Your task to perform on an android device: Open calendar and show me the third week of next month Image 0: 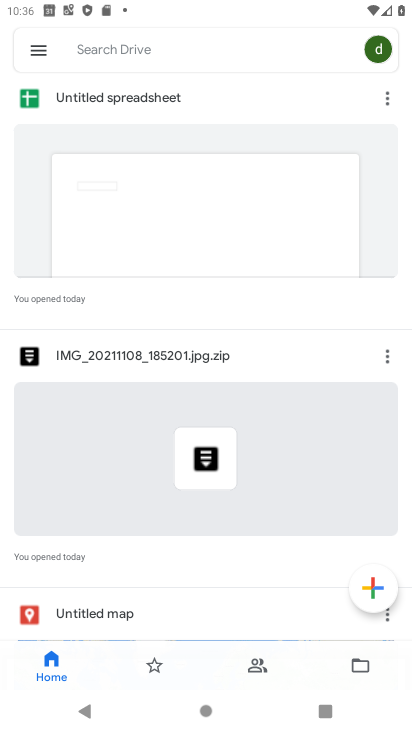
Step 0: press home button
Your task to perform on an android device: Open calendar and show me the third week of next month Image 1: 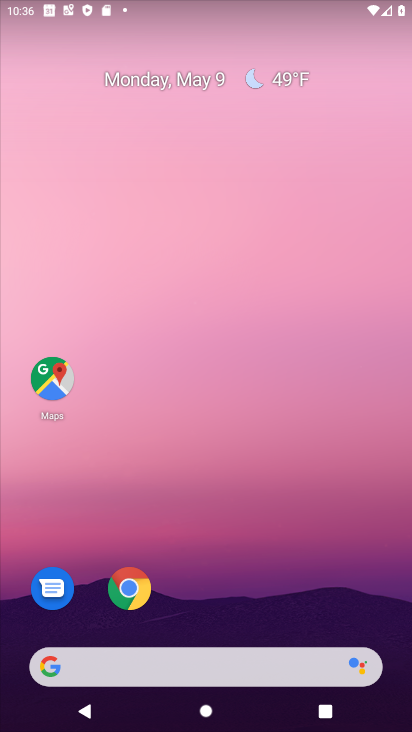
Step 1: drag from (224, 727) to (205, 364)
Your task to perform on an android device: Open calendar and show me the third week of next month Image 2: 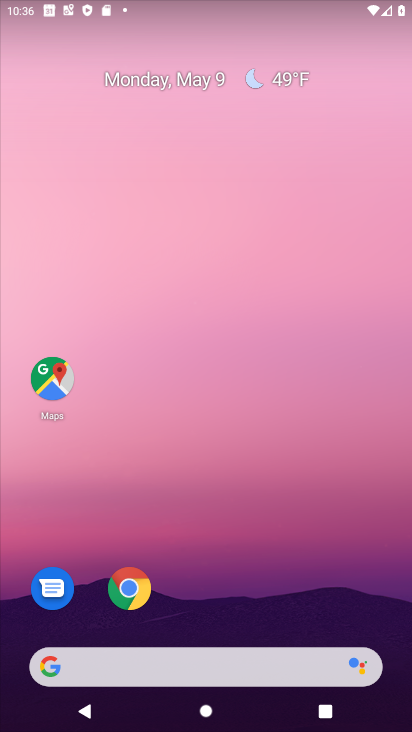
Step 2: drag from (221, 725) to (216, 368)
Your task to perform on an android device: Open calendar and show me the third week of next month Image 3: 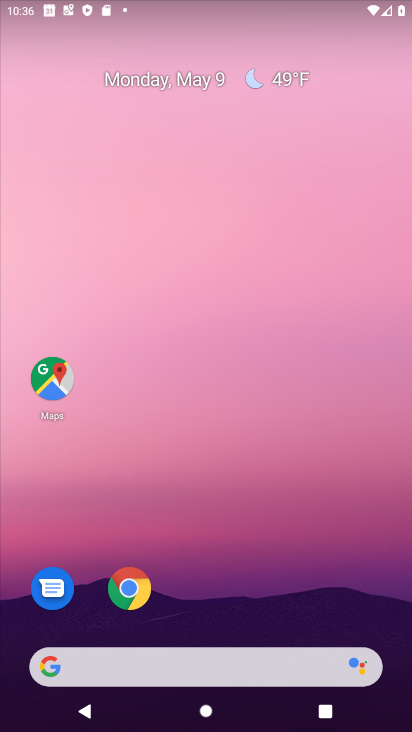
Step 3: drag from (227, 715) to (211, 473)
Your task to perform on an android device: Open calendar and show me the third week of next month Image 4: 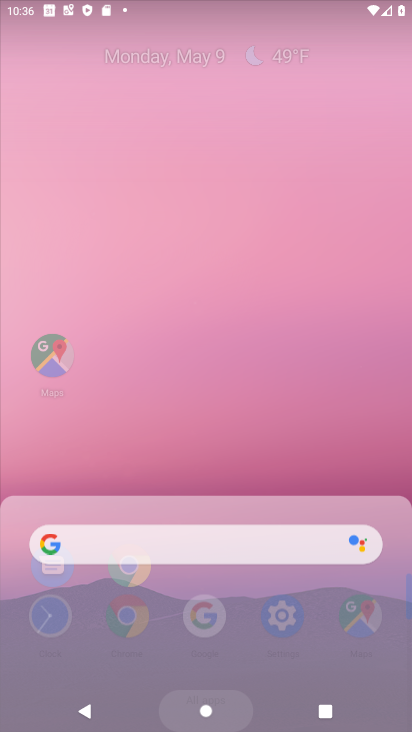
Step 4: click (211, 99)
Your task to perform on an android device: Open calendar and show me the third week of next month Image 5: 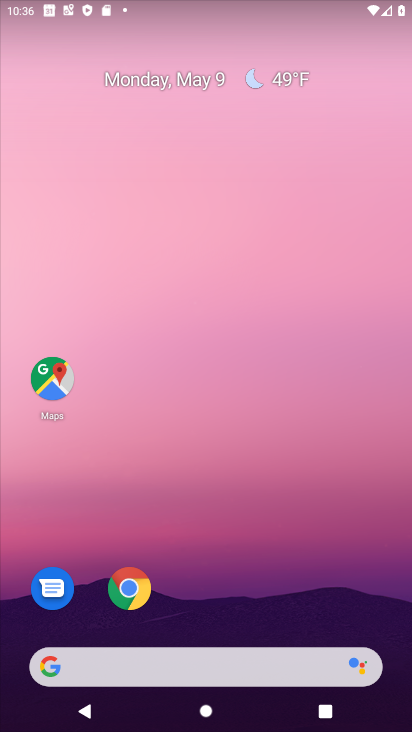
Step 5: drag from (228, 723) to (227, 139)
Your task to perform on an android device: Open calendar and show me the third week of next month Image 6: 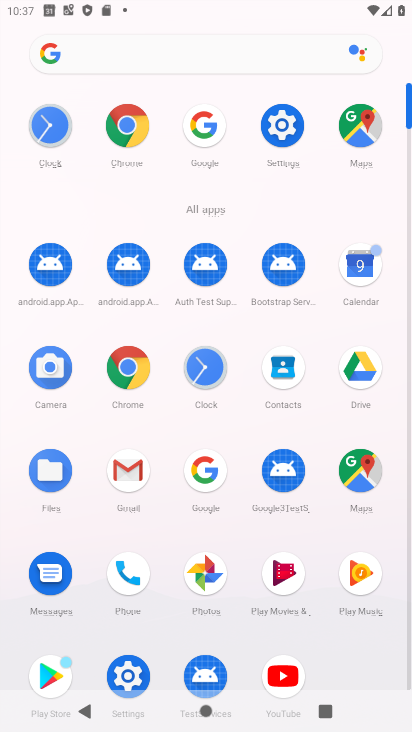
Step 6: click (357, 263)
Your task to perform on an android device: Open calendar and show me the third week of next month Image 7: 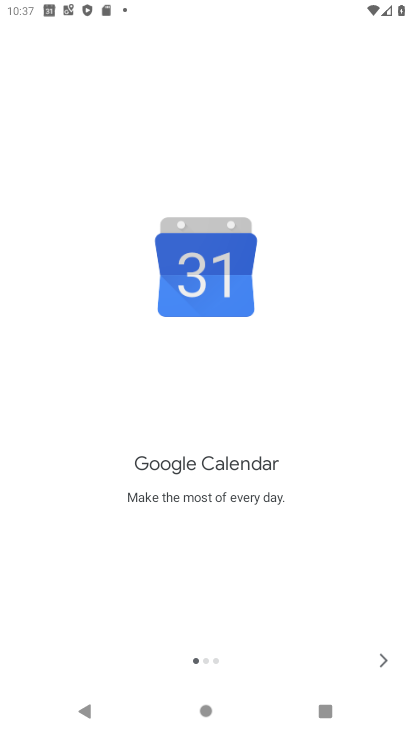
Step 7: click (380, 657)
Your task to perform on an android device: Open calendar and show me the third week of next month Image 8: 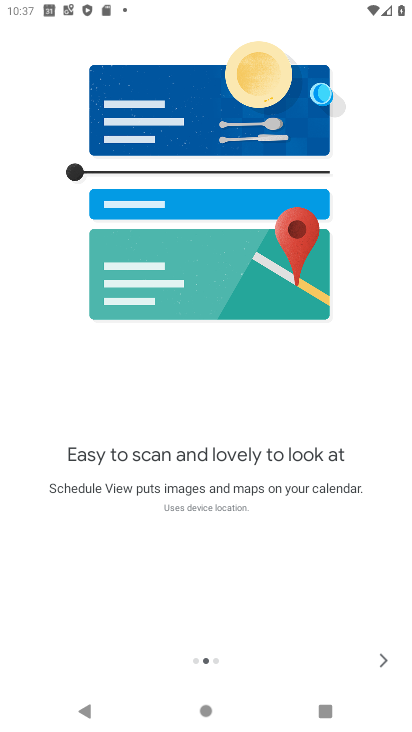
Step 8: click (374, 660)
Your task to perform on an android device: Open calendar and show me the third week of next month Image 9: 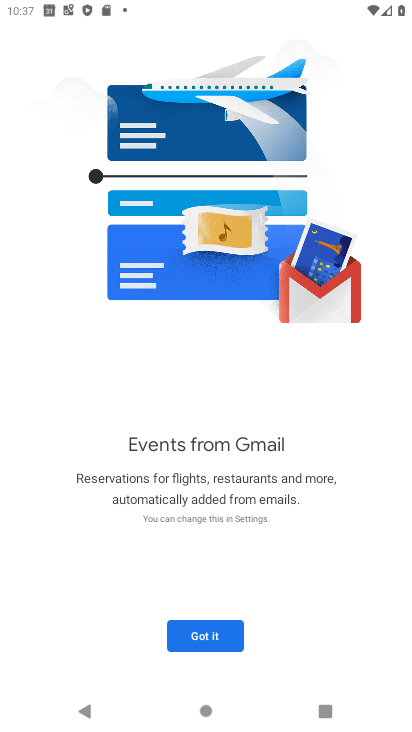
Step 9: click (203, 631)
Your task to perform on an android device: Open calendar and show me the third week of next month Image 10: 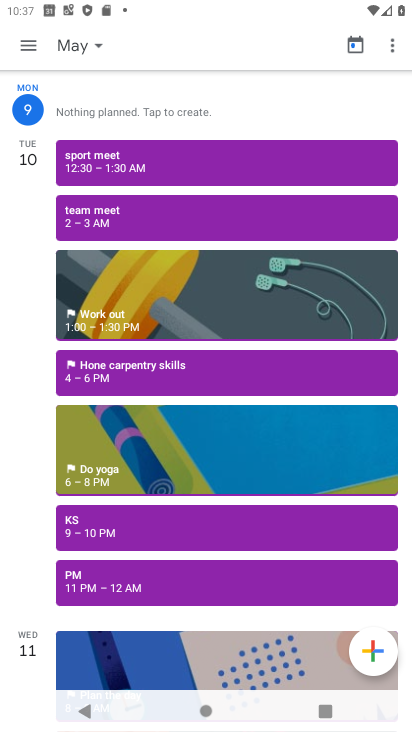
Step 10: click (72, 44)
Your task to perform on an android device: Open calendar and show me the third week of next month Image 11: 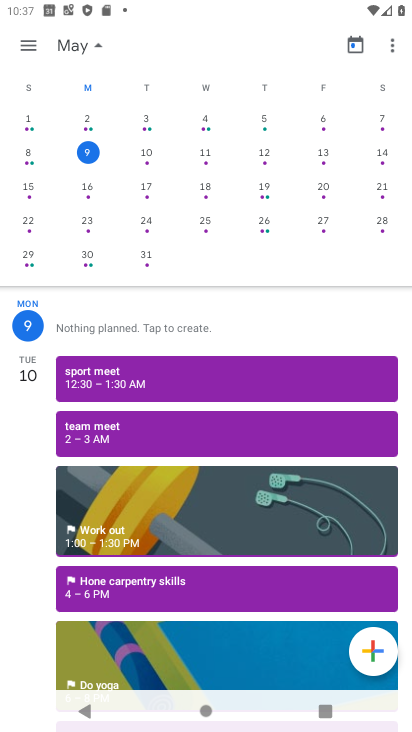
Step 11: drag from (352, 185) to (8, 201)
Your task to perform on an android device: Open calendar and show me the third week of next month Image 12: 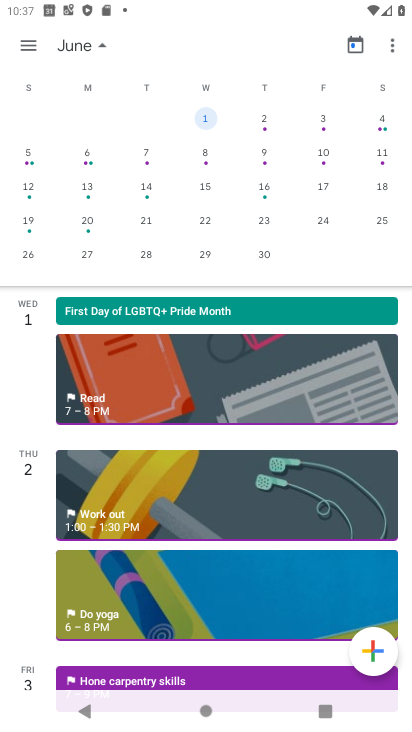
Step 12: click (84, 221)
Your task to perform on an android device: Open calendar and show me the third week of next month Image 13: 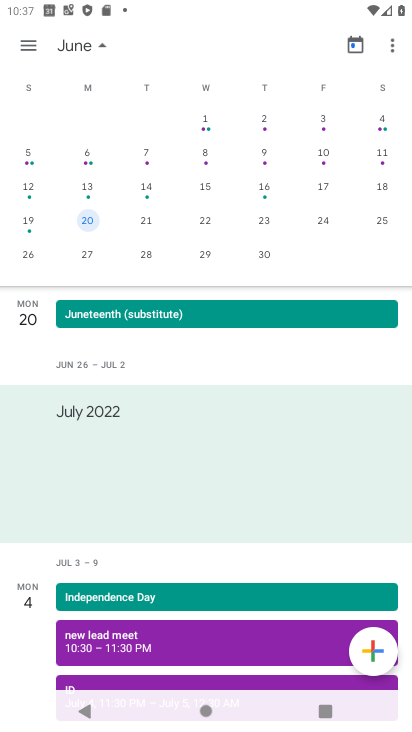
Step 13: click (24, 41)
Your task to perform on an android device: Open calendar and show me the third week of next month Image 14: 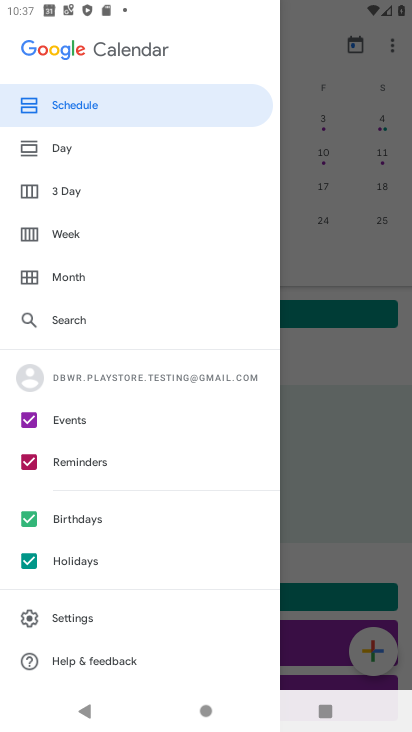
Step 14: click (65, 232)
Your task to perform on an android device: Open calendar and show me the third week of next month Image 15: 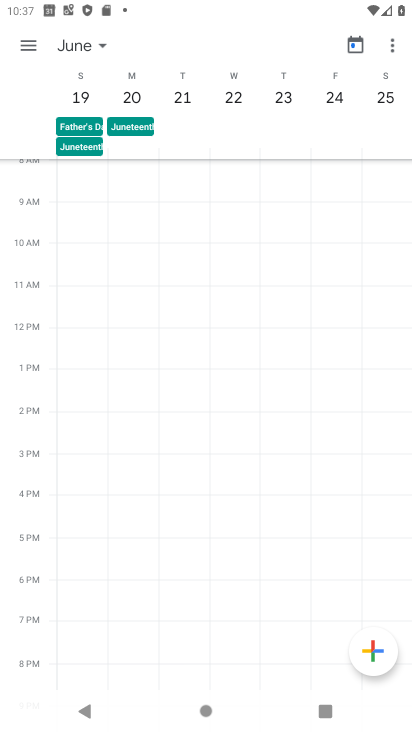
Step 15: task complete